Your task to perform on an android device: What is the recent news? Image 0: 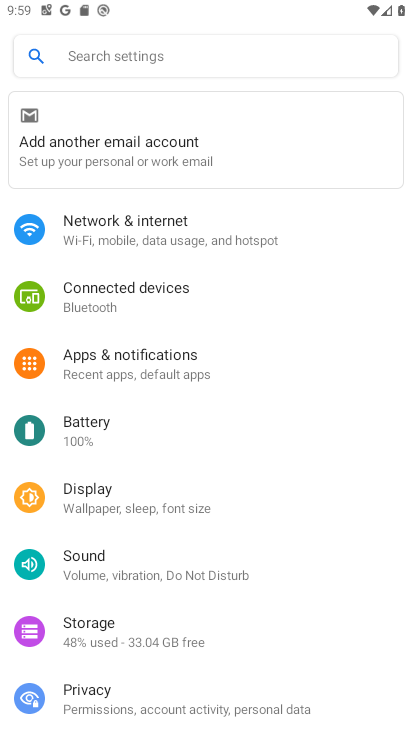
Step 0: press home button
Your task to perform on an android device: What is the recent news? Image 1: 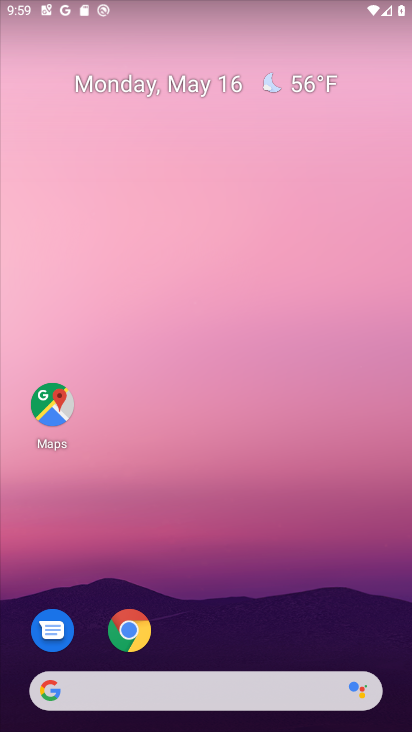
Step 1: click (205, 700)
Your task to perform on an android device: What is the recent news? Image 2: 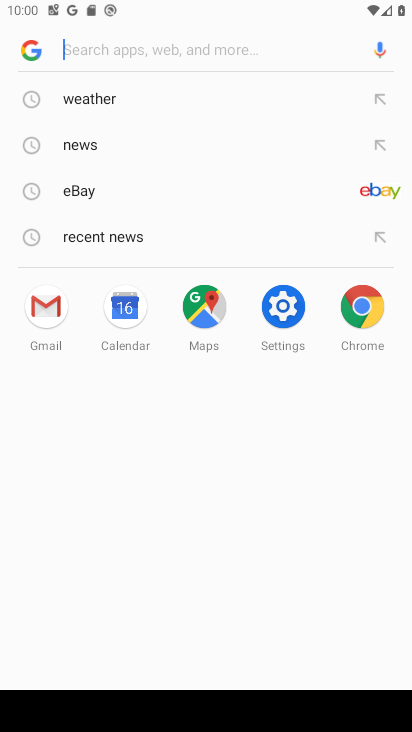
Step 2: click (112, 233)
Your task to perform on an android device: What is the recent news? Image 3: 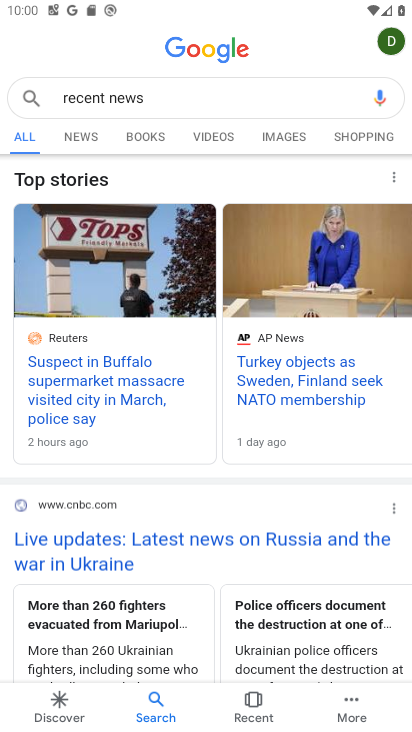
Step 3: task complete